Your task to perform on an android device: Go to Android settings Image 0: 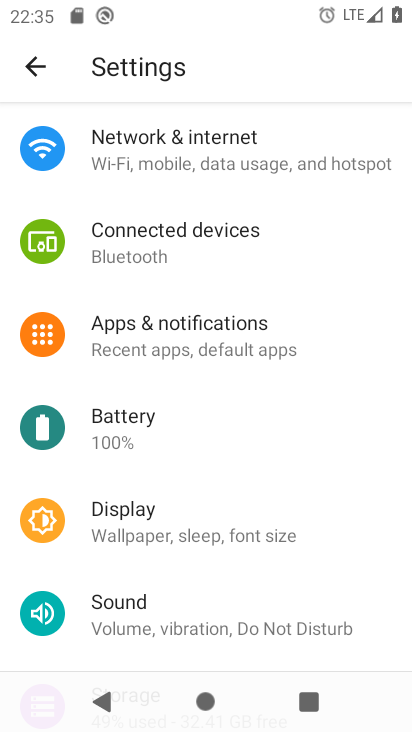
Step 0: drag from (259, 568) to (239, 228)
Your task to perform on an android device: Go to Android settings Image 1: 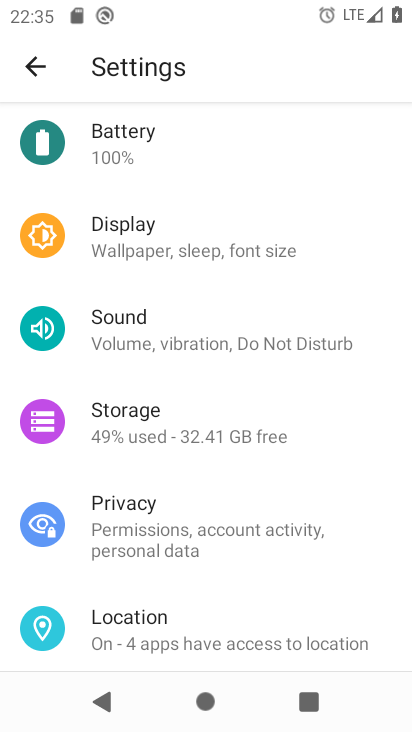
Step 1: drag from (210, 557) to (257, 152)
Your task to perform on an android device: Go to Android settings Image 2: 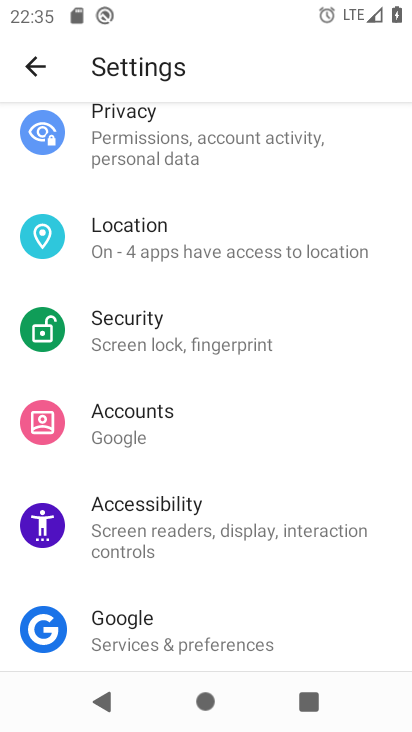
Step 2: drag from (234, 529) to (270, 166)
Your task to perform on an android device: Go to Android settings Image 3: 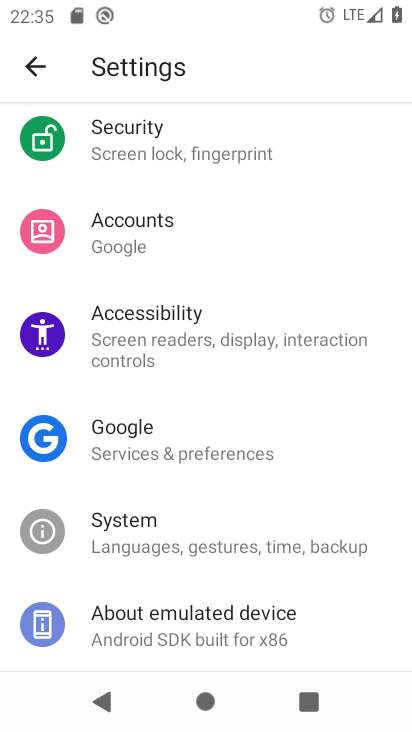
Step 3: click (211, 617)
Your task to perform on an android device: Go to Android settings Image 4: 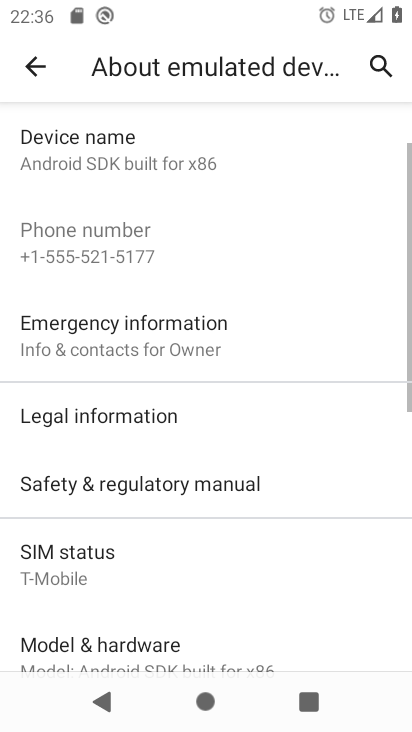
Step 4: task complete